Your task to perform on an android device: Search for Mexican restaurants on Maps Image 0: 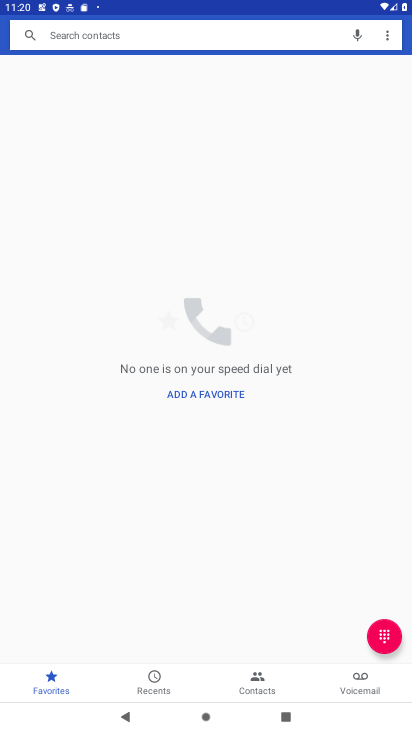
Step 0: press home button
Your task to perform on an android device: Search for Mexican restaurants on Maps Image 1: 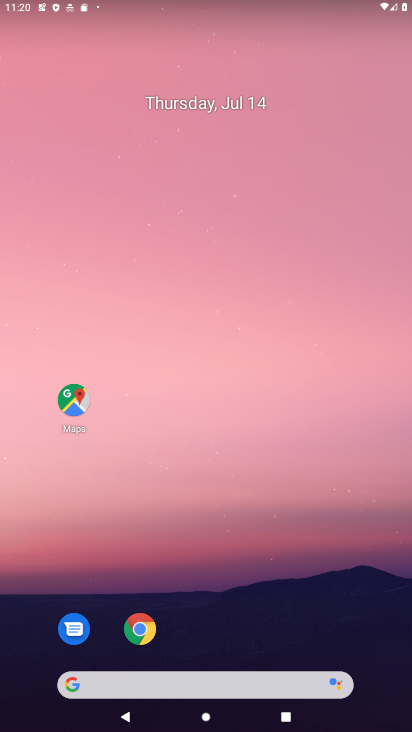
Step 1: click (76, 391)
Your task to perform on an android device: Search for Mexican restaurants on Maps Image 2: 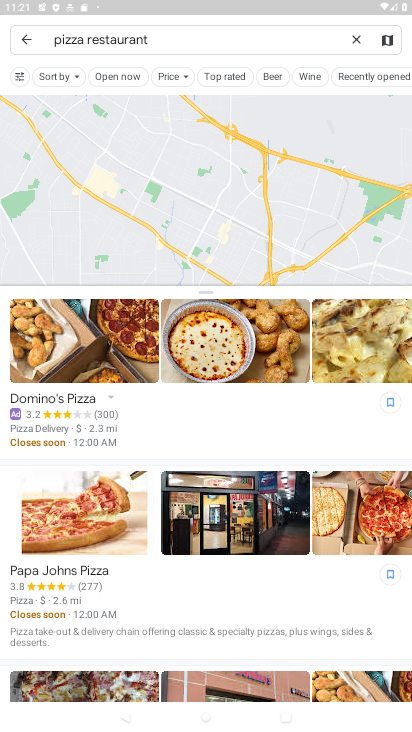
Step 2: click (358, 37)
Your task to perform on an android device: Search for Mexican restaurants on Maps Image 3: 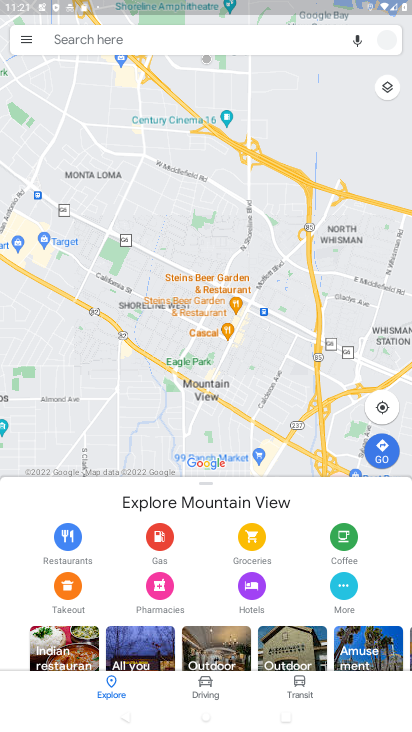
Step 3: type "Mexican restaurants"
Your task to perform on an android device: Search for Mexican restaurants on Maps Image 4: 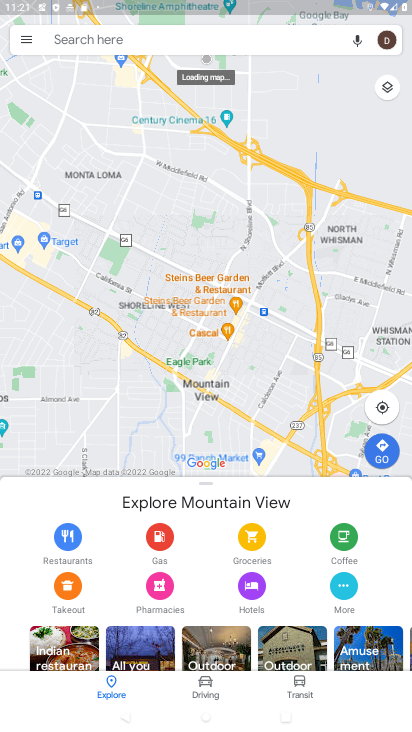
Step 4: click (173, 40)
Your task to perform on an android device: Search for Mexican restaurants on Maps Image 5: 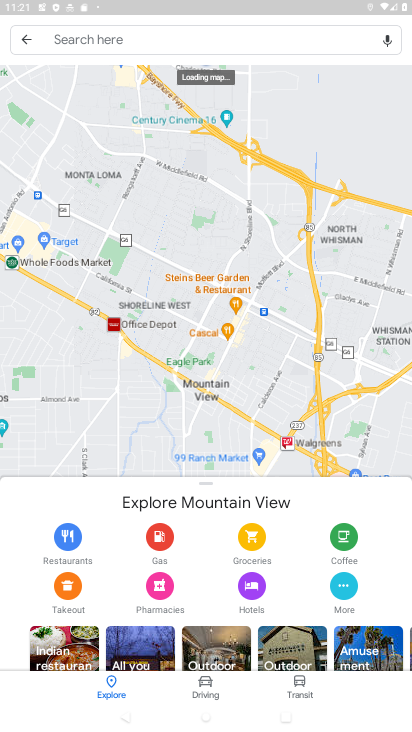
Step 5: click (118, 40)
Your task to perform on an android device: Search for Mexican restaurants on Maps Image 6: 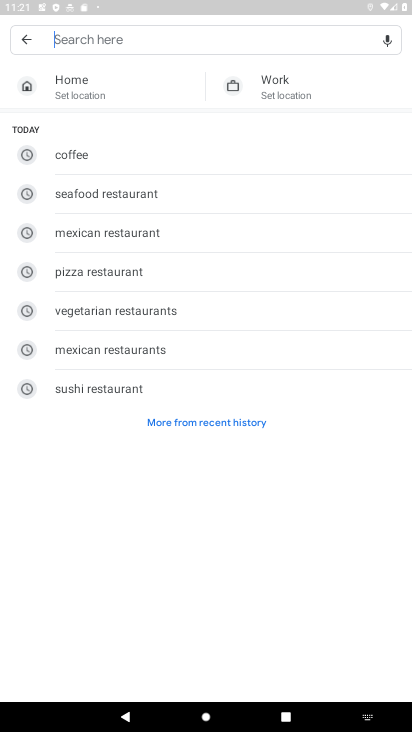
Step 6: click (99, 345)
Your task to perform on an android device: Search for Mexican restaurants on Maps Image 7: 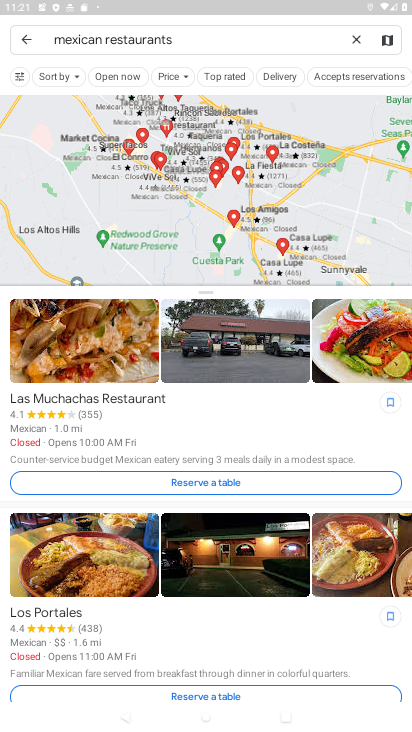
Step 7: task complete